Your task to perform on an android device: Search for seafood restaurants on Google Maps Image 0: 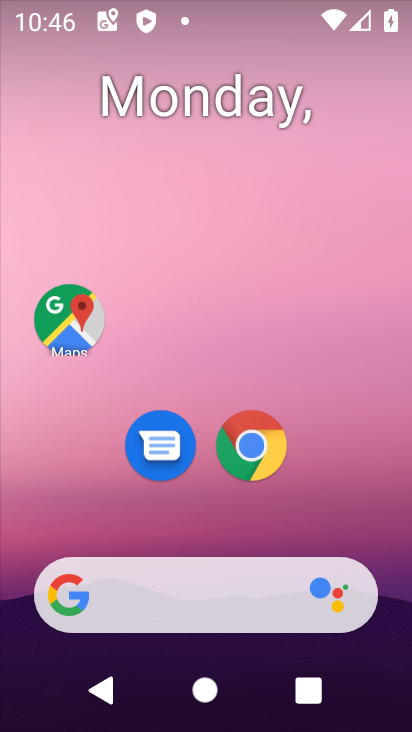
Step 0: click (72, 320)
Your task to perform on an android device: Search for seafood restaurants on Google Maps Image 1: 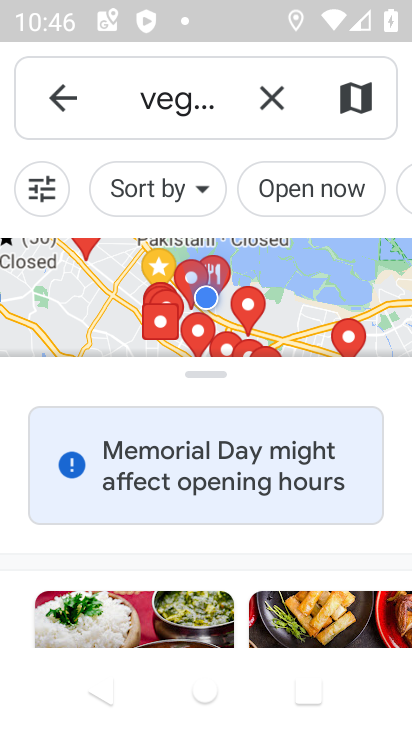
Step 1: click (264, 93)
Your task to perform on an android device: Search for seafood restaurants on Google Maps Image 2: 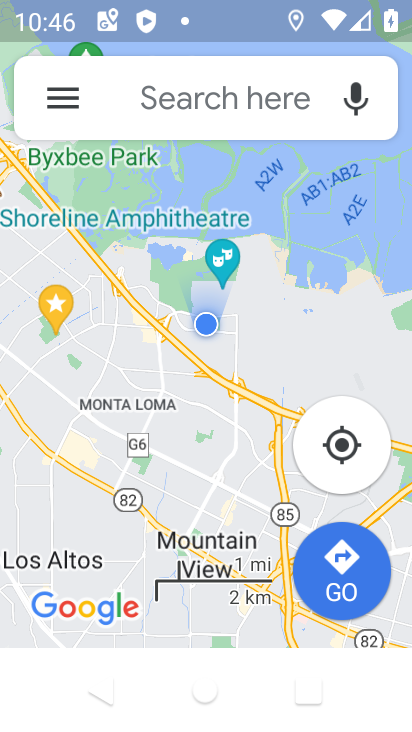
Step 2: click (182, 104)
Your task to perform on an android device: Search for seafood restaurants on Google Maps Image 3: 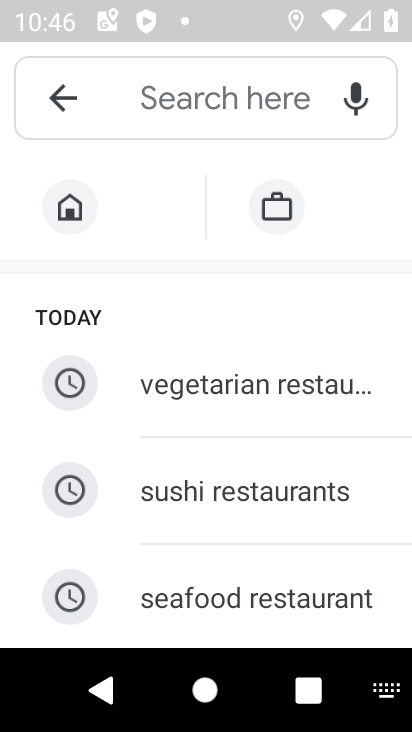
Step 3: click (205, 592)
Your task to perform on an android device: Search for seafood restaurants on Google Maps Image 4: 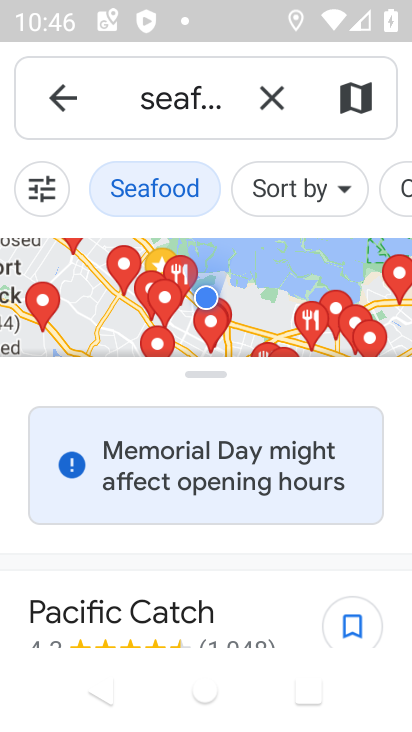
Step 4: task complete